Your task to perform on an android device: allow cookies in the chrome app Image 0: 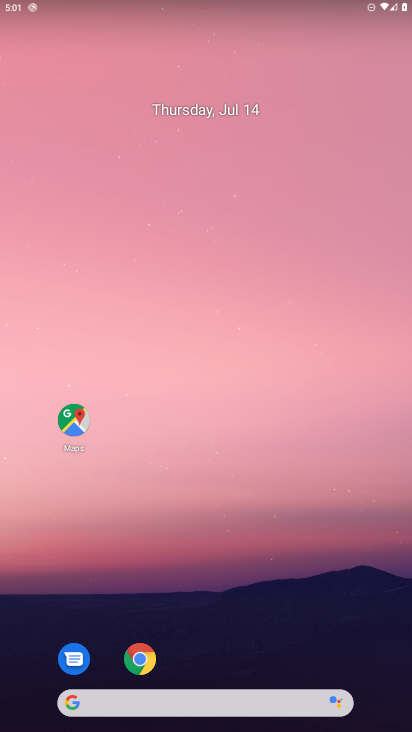
Step 0: press home button
Your task to perform on an android device: allow cookies in the chrome app Image 1: 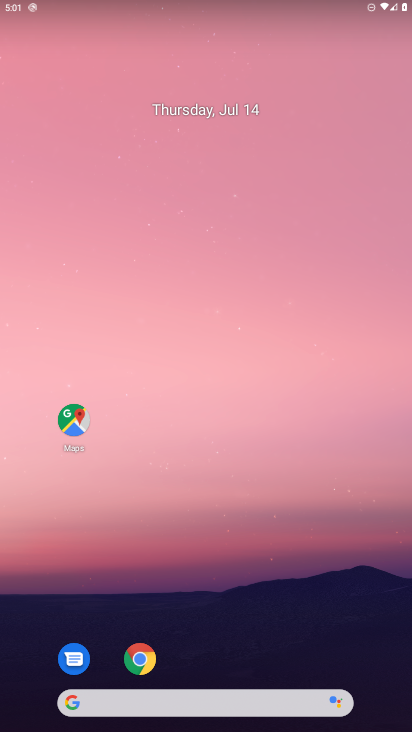
Step 1: click (140, 652)
Your task to perform on an android device: allow cookies in the chrome app Image 2: 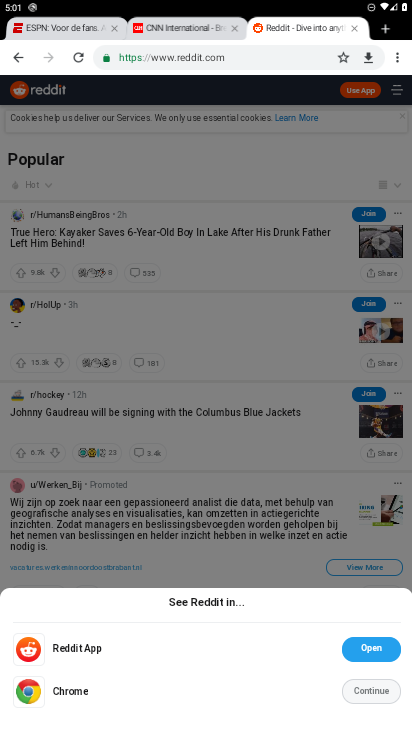
Step 2: click (375, 688)
Your task to perform on an android device: allow cookies in the chrome app Image 3: 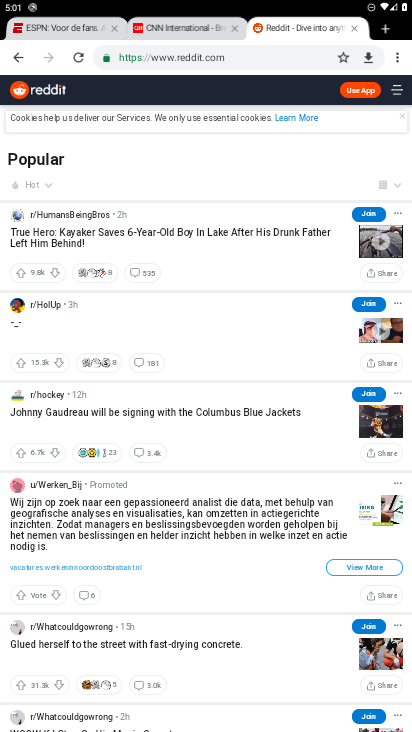
Step 3: click (398, 60)
Your task to perform on an android device: allow cookies in the chrome app Image 4: 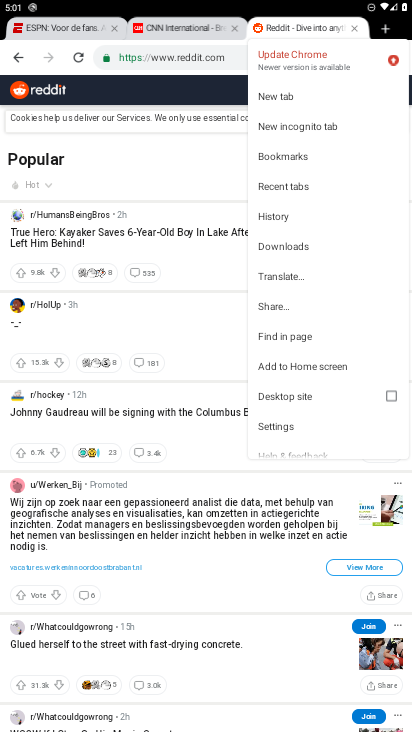
Step 4: click (297, 419)
Your task to perform on an android device: allow cookies in the chrome app Image 5: 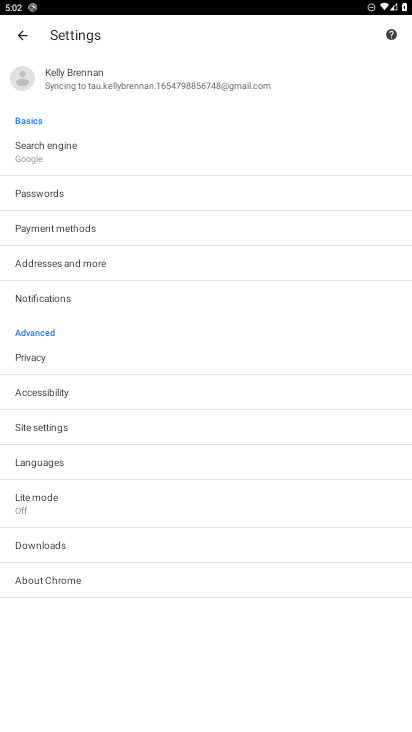
Step 5: click (62, 428)
Your task to perform on an android device: allow cookies in the chrome app Image 6: 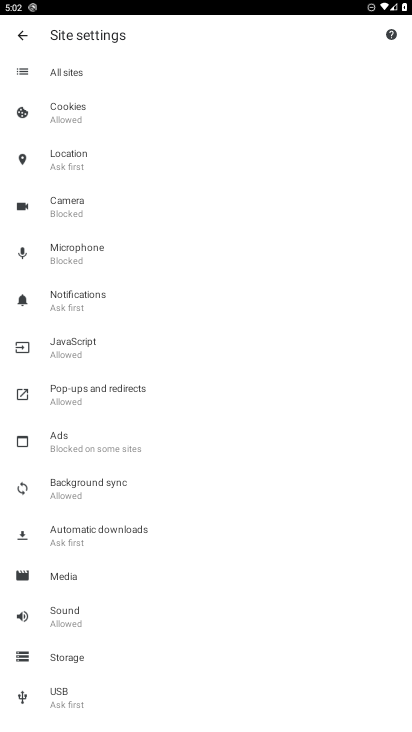
Step 6: click (95, 110)
Your task to perform on an android device: allow cookies in the chrome app Image 7: 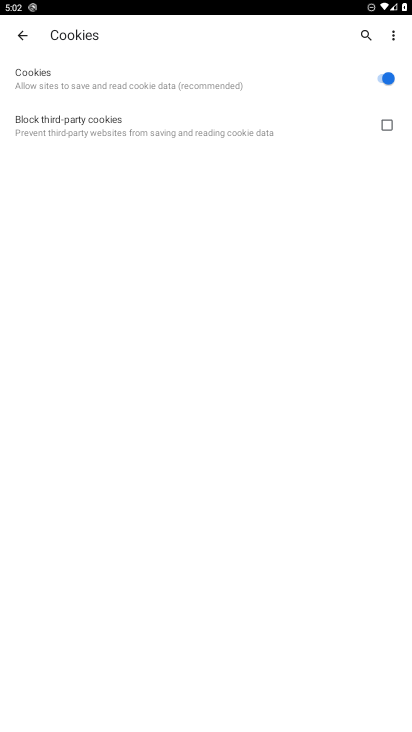
Step 7: task complete